Your task to perform on an android device: allow notifications from all sites in the chrome app Image 0: 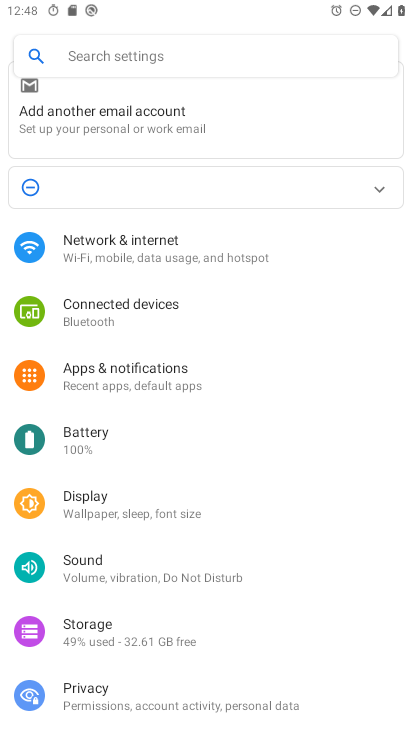
Step 0: press home button
Your task to perform on an android device: allow notifications from all sites in the chrome app Image 1: 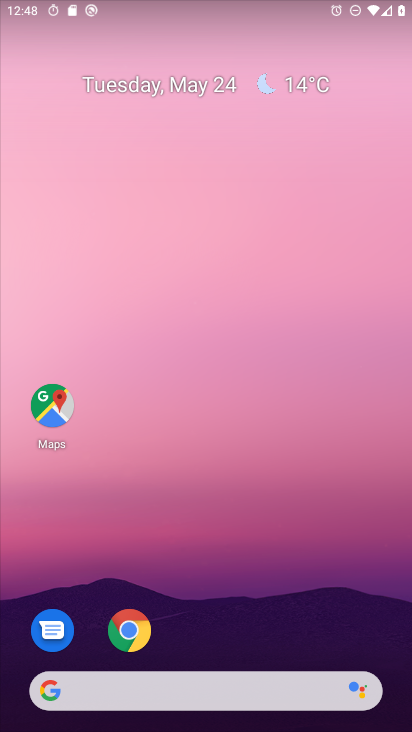
Step 1: drag from (313, 610) to (264, 171)
Your task to perform on an android device: allow notifications from all sites in the chrome app Image 2: 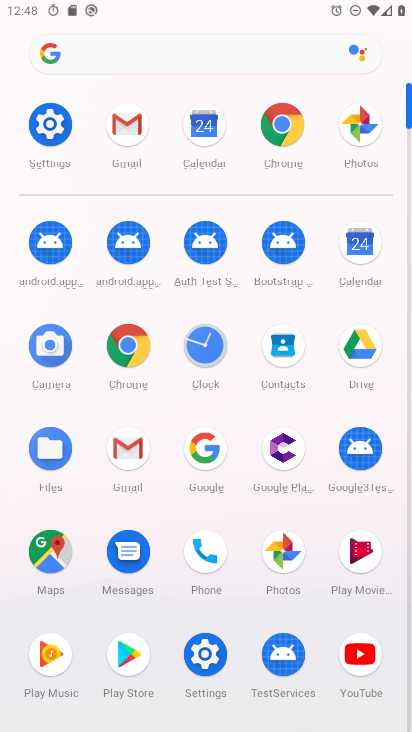
Step 2: click (122, 350)
Your task to perform on an android device: allow notifications from all sites in the chrome app Image 3: 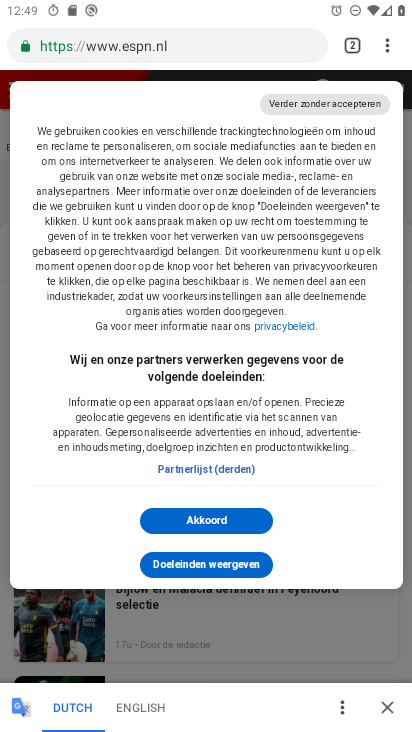
Step 3: drag from (390, 55) to (292, 537)
Your task to perform on an android device: allow notifications from all sites in the chrome app Image 4: 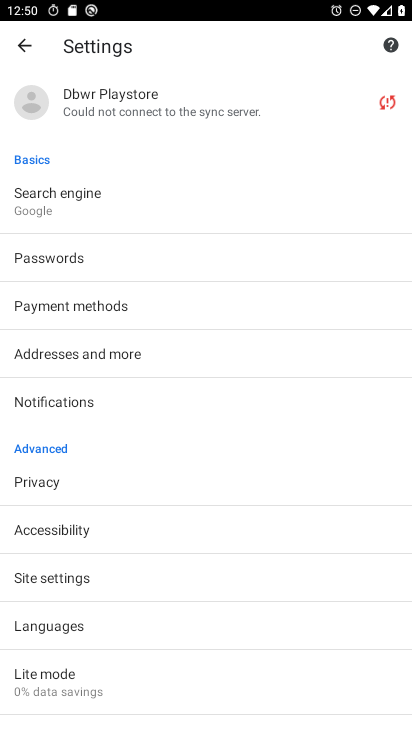
Step 4: click (199, 569)
Your task to perform on an android device: allow notifications from all sites in the chrome app Image 5: 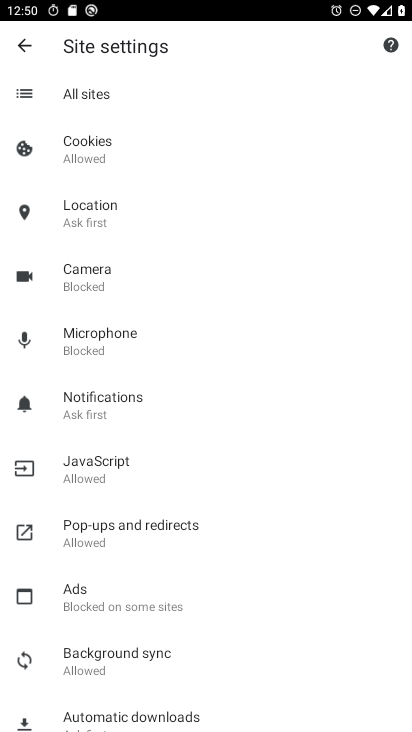
Step 5: click (137, 91)
Your task to perform on an android device: allow notifications from all sites in the chrome app Image 6: 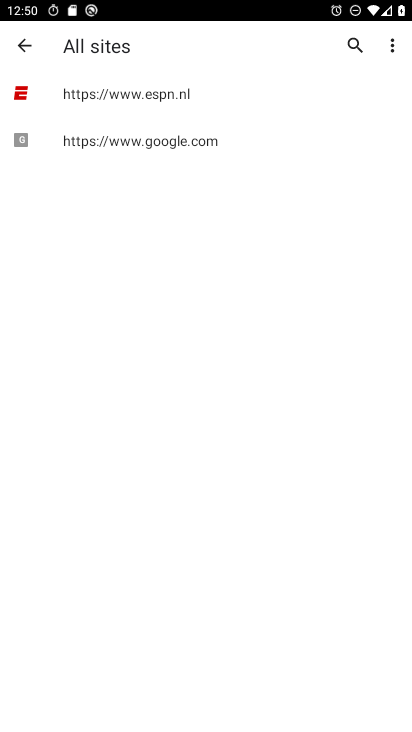
Step 6: click (137, 91)
Your task to perform on an android device: allow notifications from all sites in the chrome app Image 7: 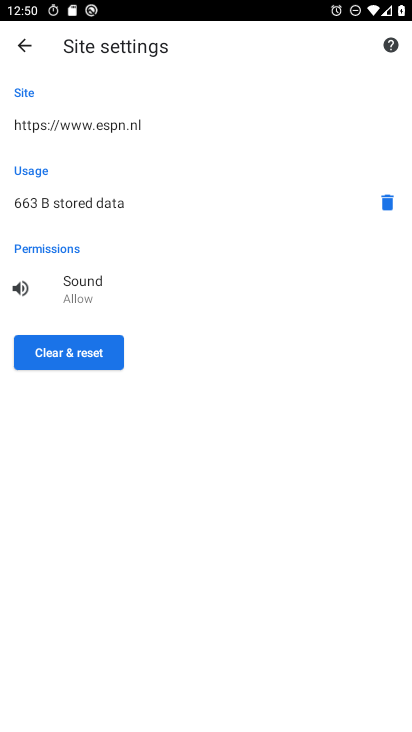
Step 7: task complete